Your task to perform on an android device: Open internet settings Image 0: 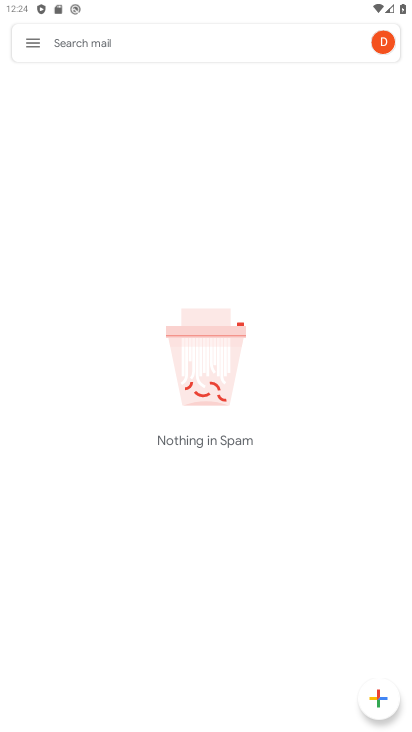
Step 0: press home button
Your task to perform on an android device: Open internet settings Image 1: 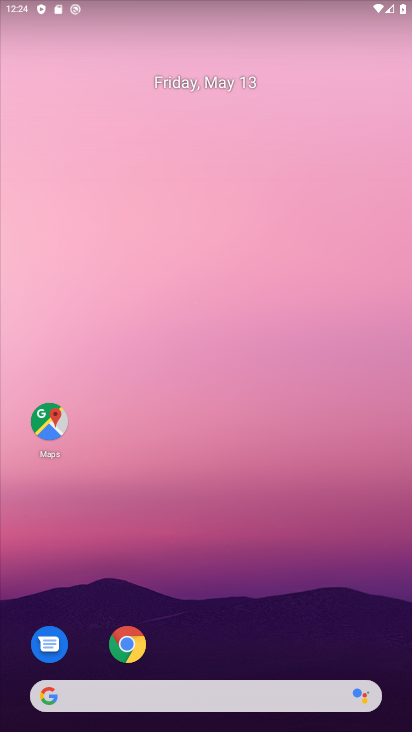
Step 1: drag from (258, 623) to (255, 52)
Your task to perform on an android device: Open internet settings Image 2: 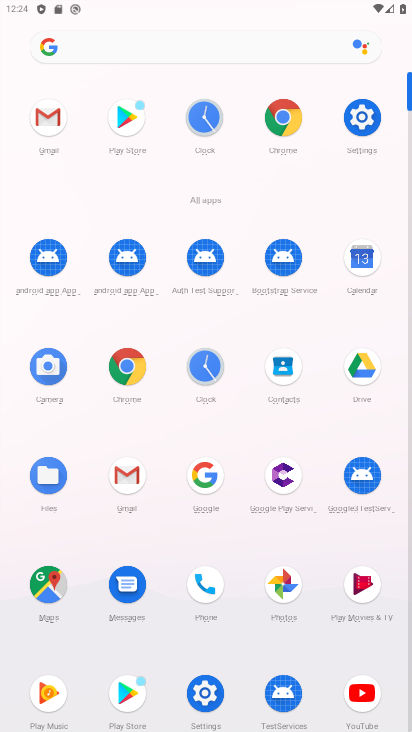
Step 2: click (368, 118)
Your task to perform on an android device: Open internet settings Image 3: 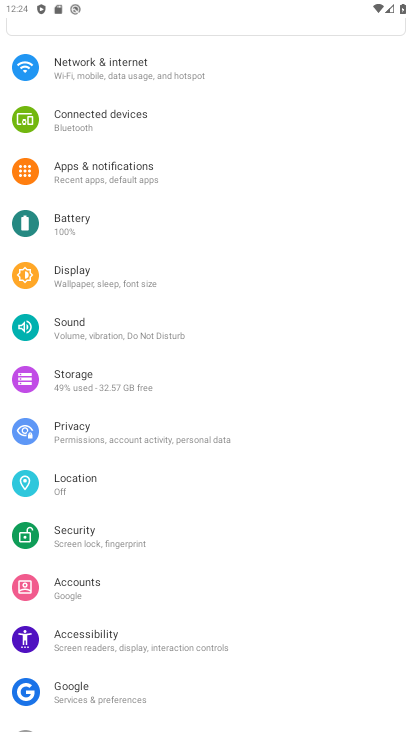
Step 3: click (139, 74)
Your task to perform on an android device: Open internet settings Image 4: 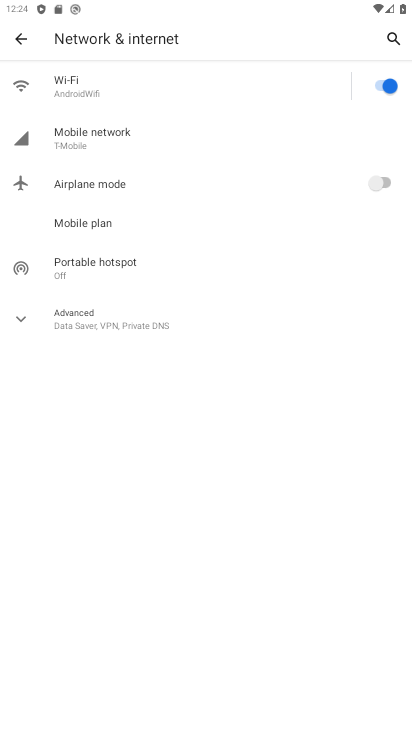
Step 4: task complete